Your task to perform on an android device: turn on bluetooth scan Image 0: 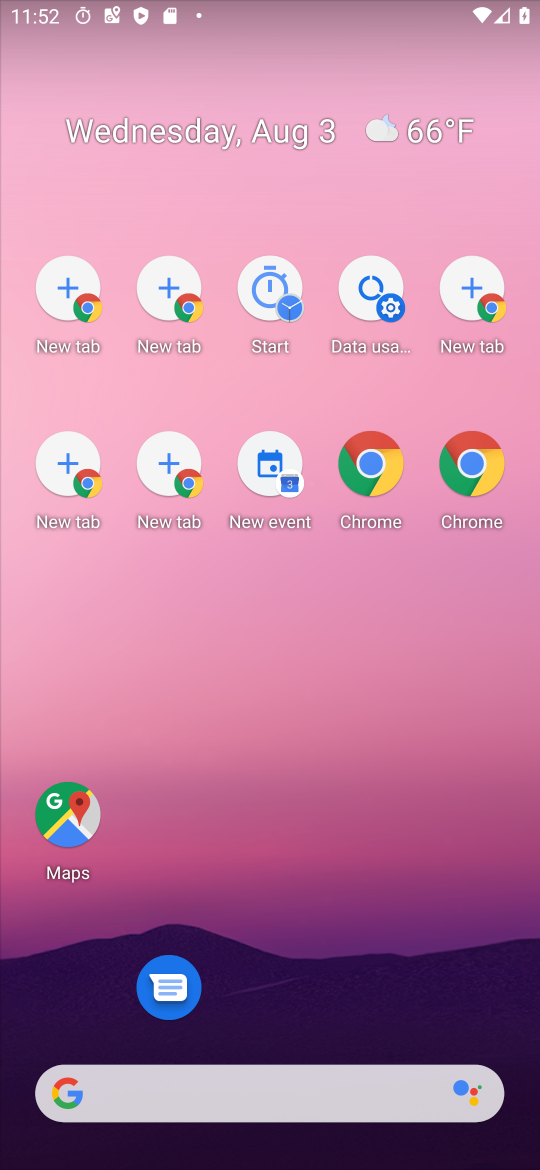
Step 0: drag from (227, 224) to (288, 118)
Your task to perform on an android device: turn on bluetooth scan Image 1: 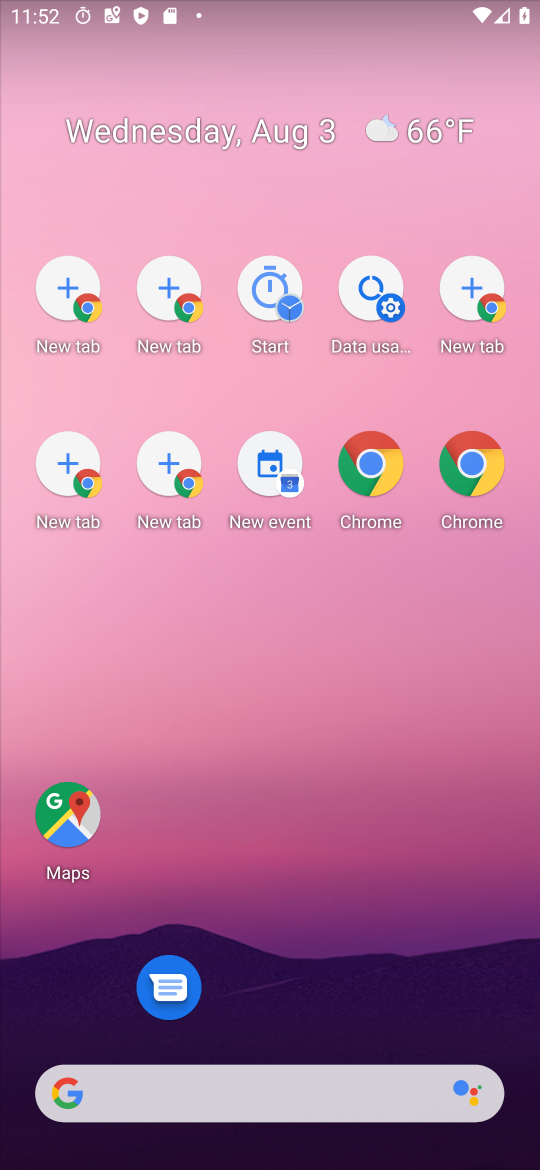
Step 1: click (284, 276)
Your task to perform on an android device: turn on bluetooth scan Image 2: 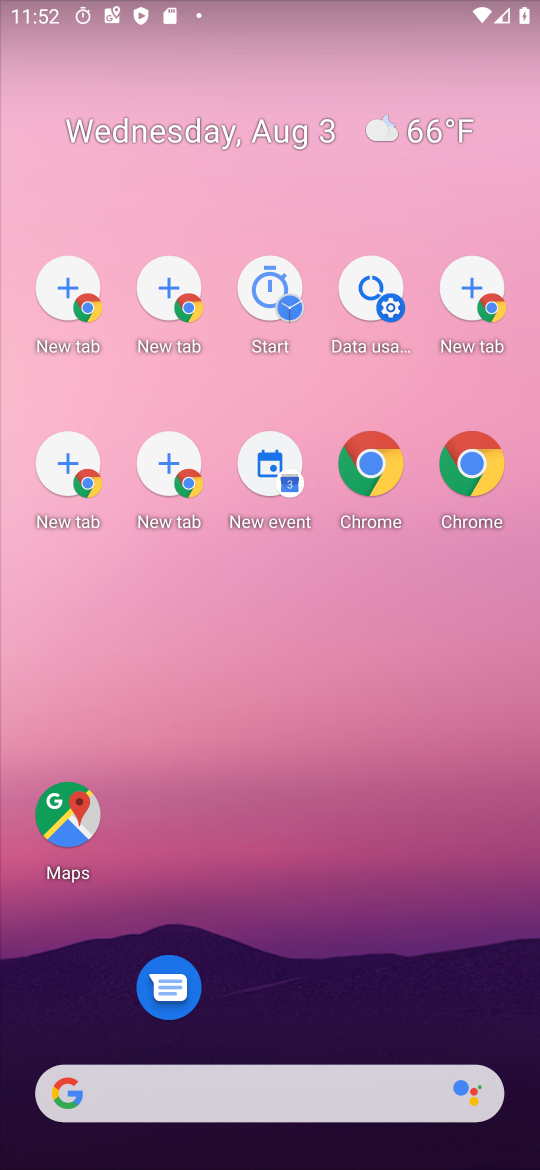
Step 2: click (276, 319)
Your task to perform on an android device: turn on bluetooth scan Image 3: 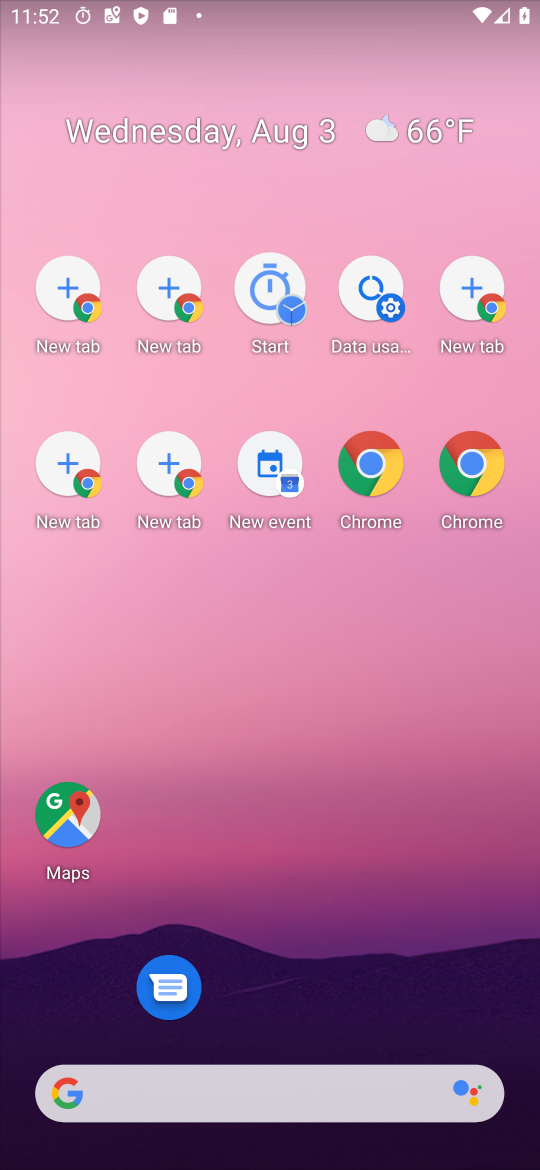
Step 3: click (227, 732)
Your task to perform on an android device: turn on bluetooth scan Image 4: 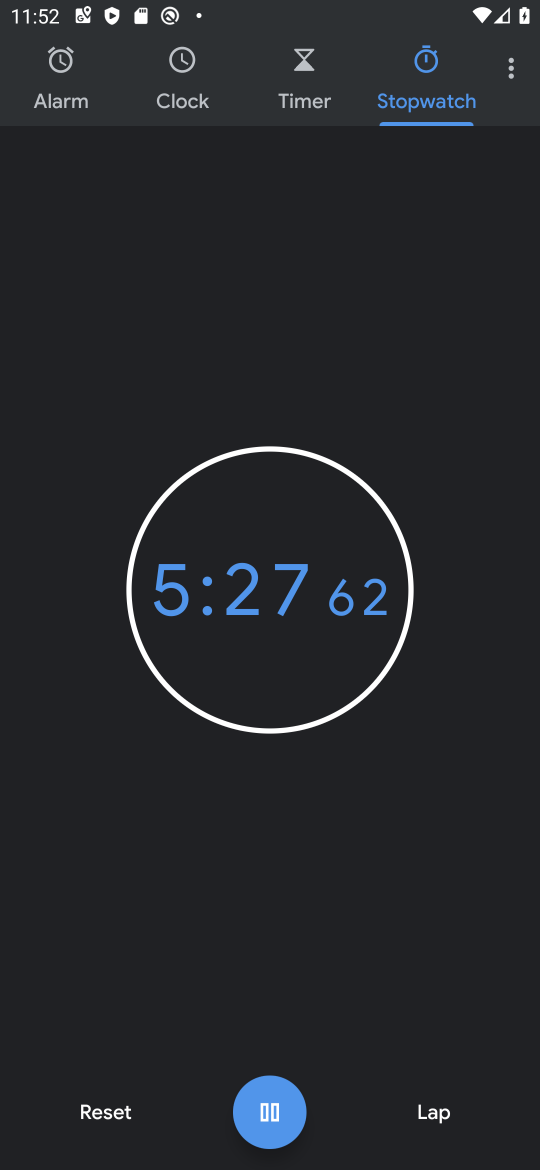
Step 4: press back button
Your task to perform on an android device: turn on bluetooth scan Image 5: 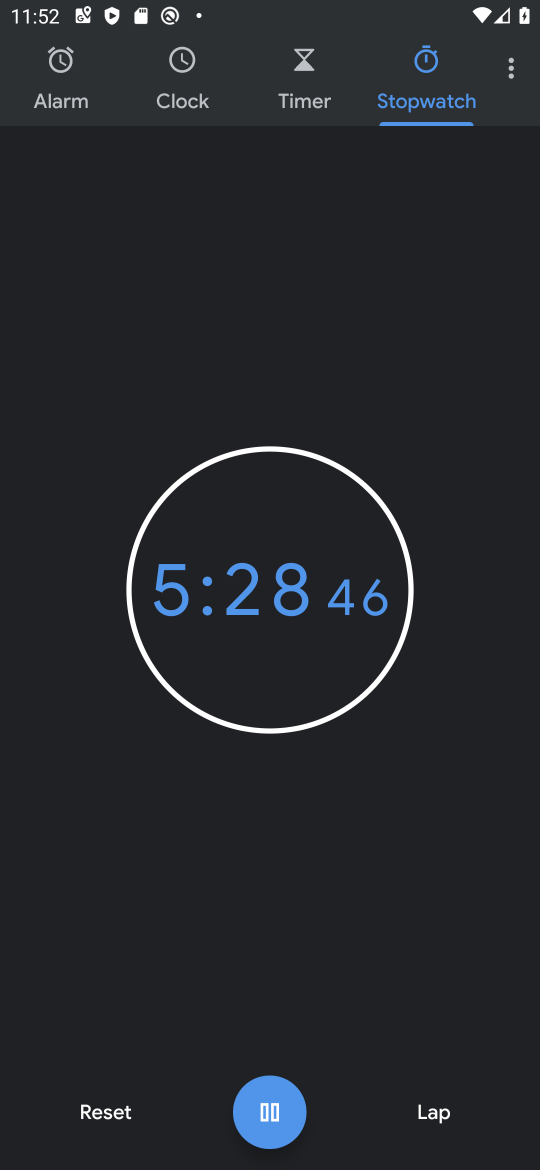
Step 5: press back button
Your task to perform on an android device: turn on bluetooth scan Image 6: 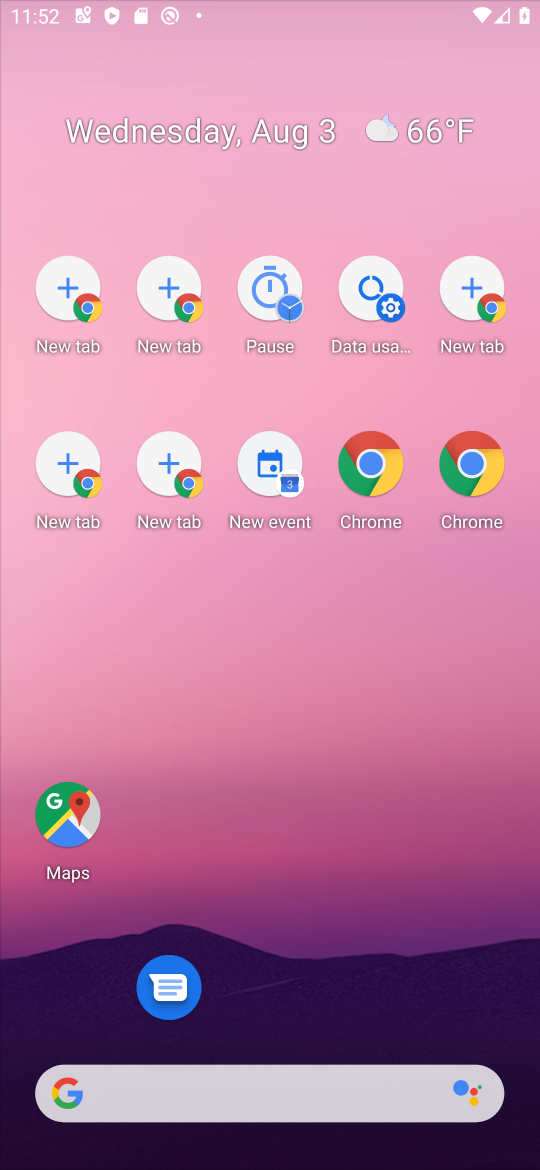
Step 6: press back button
Your task to perform on an android device: turn on bluetooth scan Image 7: 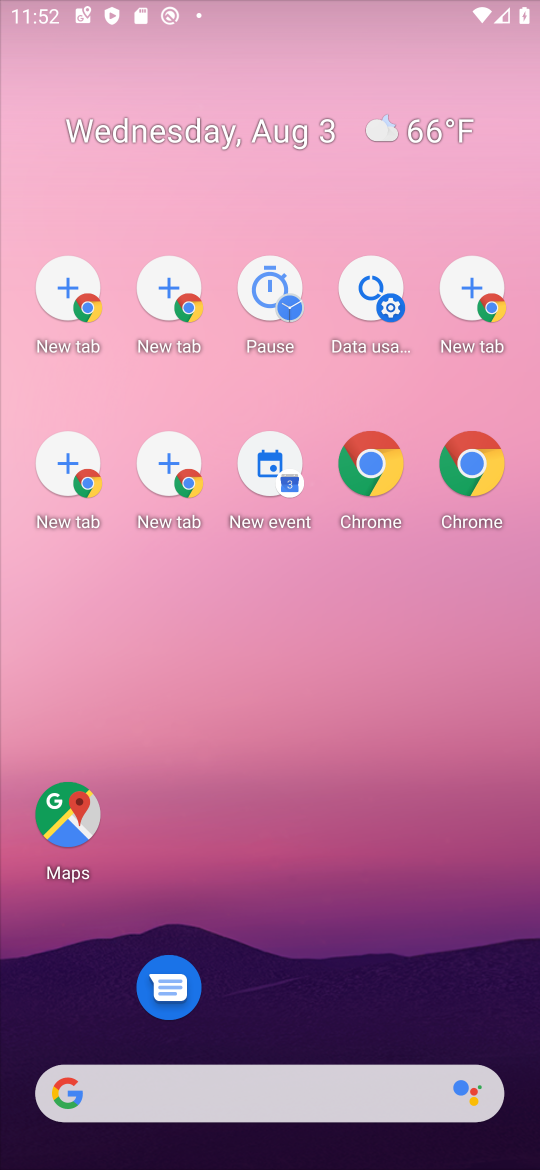
Step 7: click (257, 48)
Your task to perform on an android device: turn on bluetooth scan Image 8: 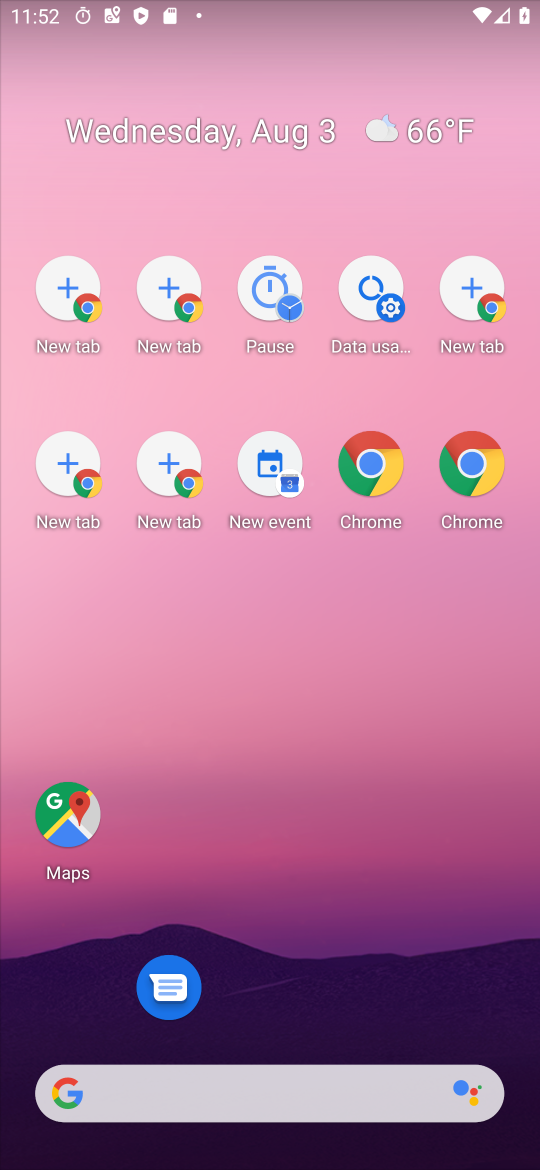
Step 8: click (317, 126)
Your task to perform on an android device: turn on bluetooth scan Image 9: 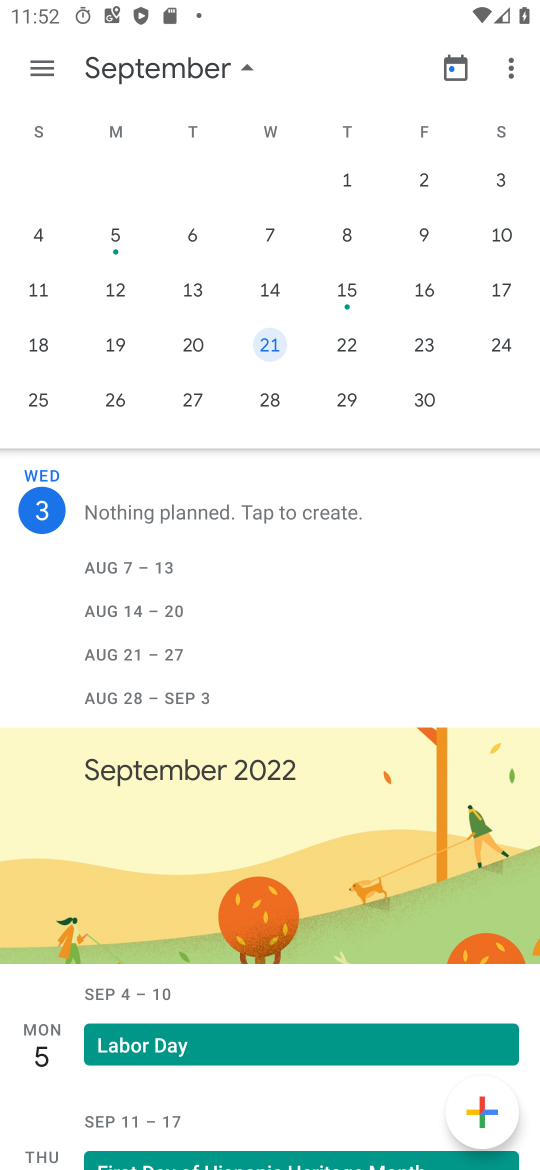
Step 9: drag from (252, 919) to (252, 460)
Your task to perform on an android device: turn on bluetooth scan Image 10: 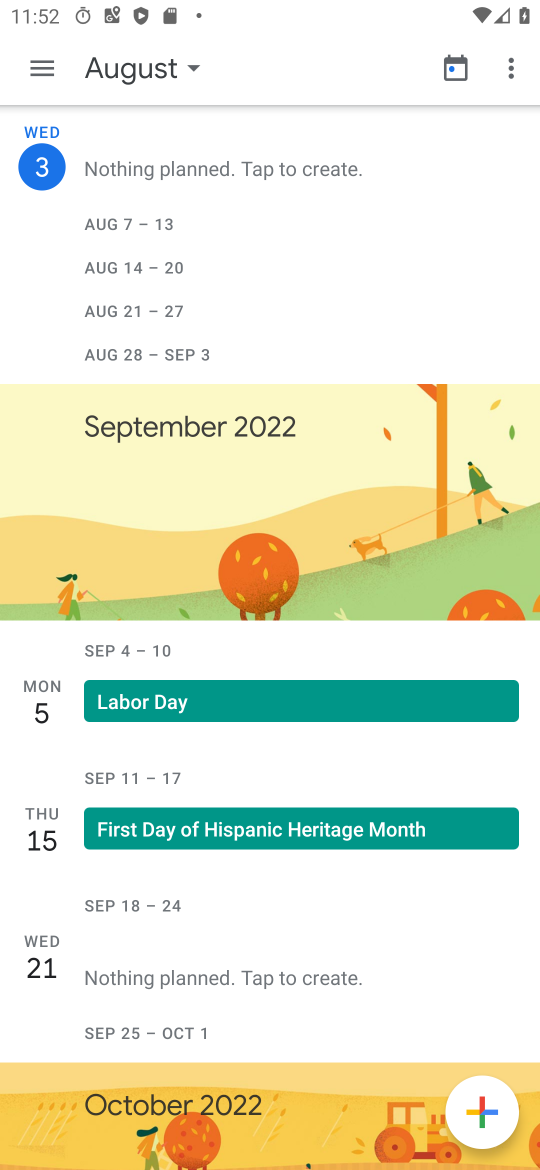
Step 10: press back button
Your task to perform on an android device: turn on bluetooth scan Image 11: 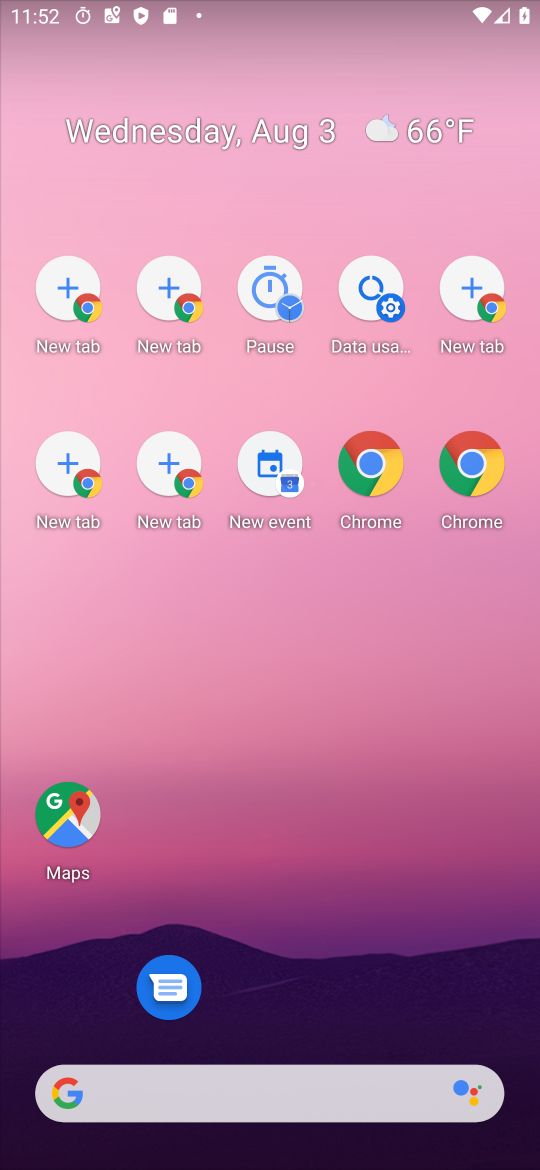
Step 11: drag from (196, 768) to (289, 224)
Your task to perform on an android device: turn on bluetooth scan Image 12: 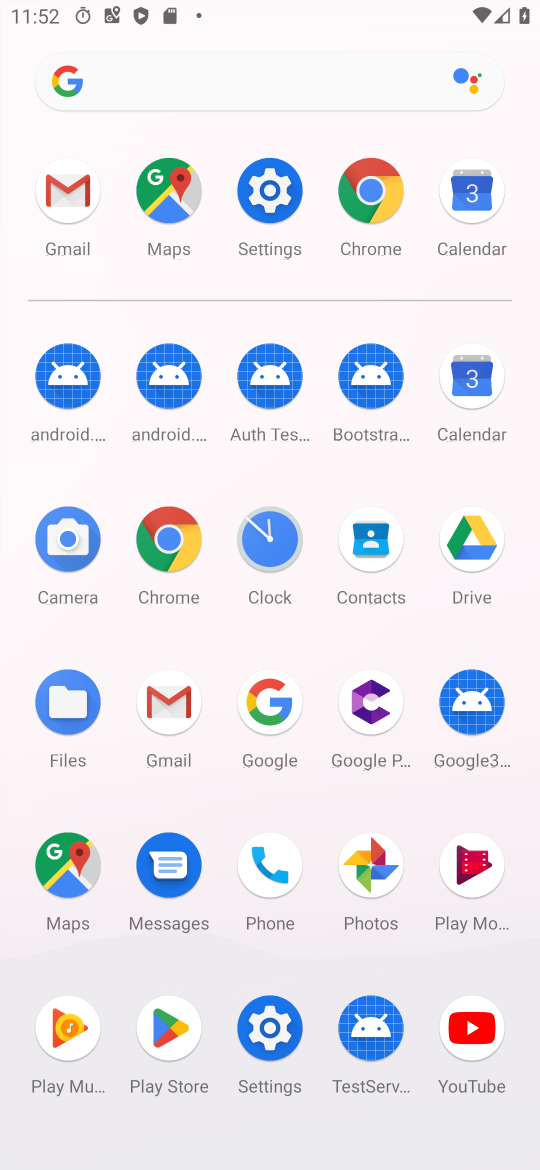
Step 12: click (256, 1029)
Your task to perform on an android device: turn on bluetooth scan Image 13: 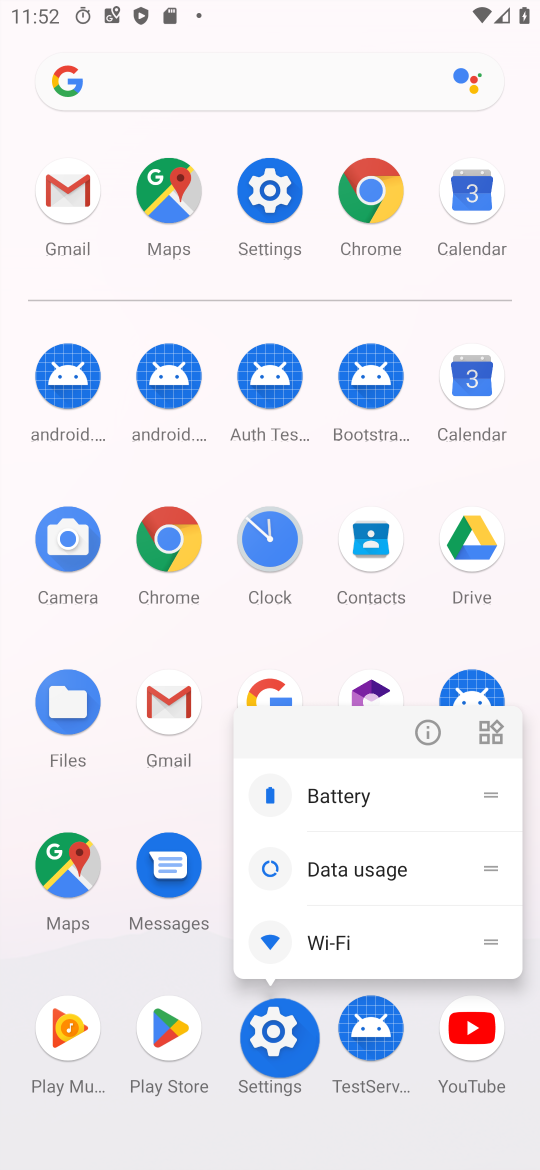
Step 13: click (265, 1044)
Your task to perform on an android device: turn on bluetooth scan Image 14: 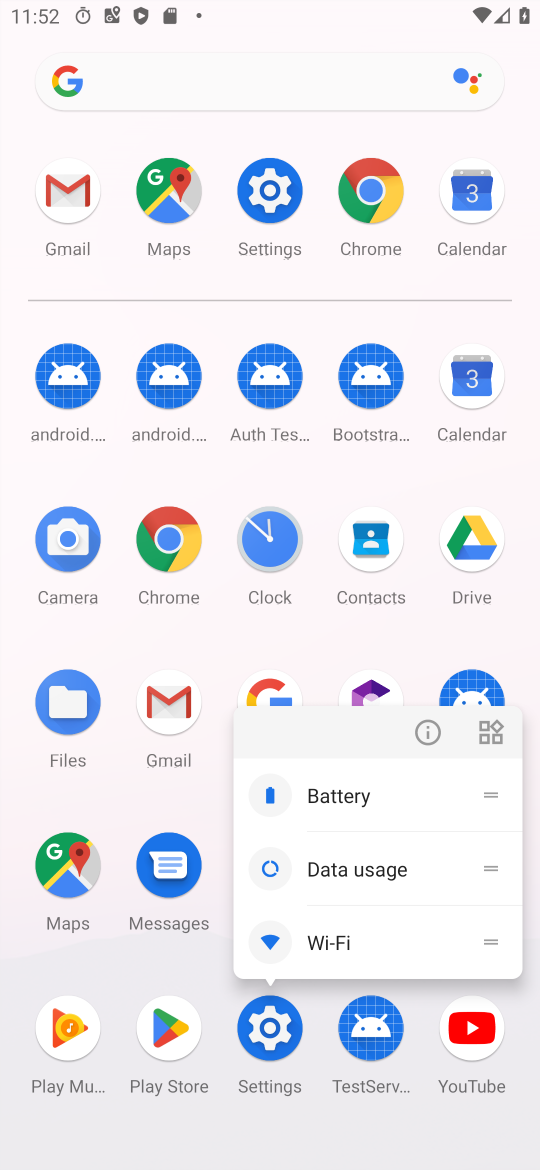
Step 14: click (256, 1020)
Your task to perform on an android device: turn on bluetooth scan Image 15: 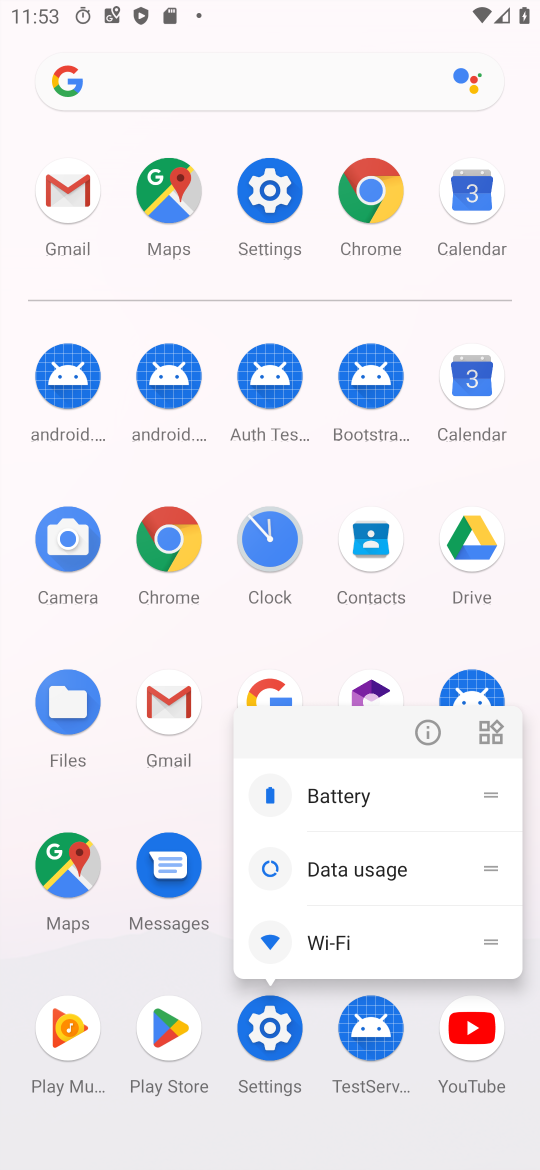
Step 15: click (271, 198)
Your task to perform on an android device: turn on bluetooth scan Image 16: 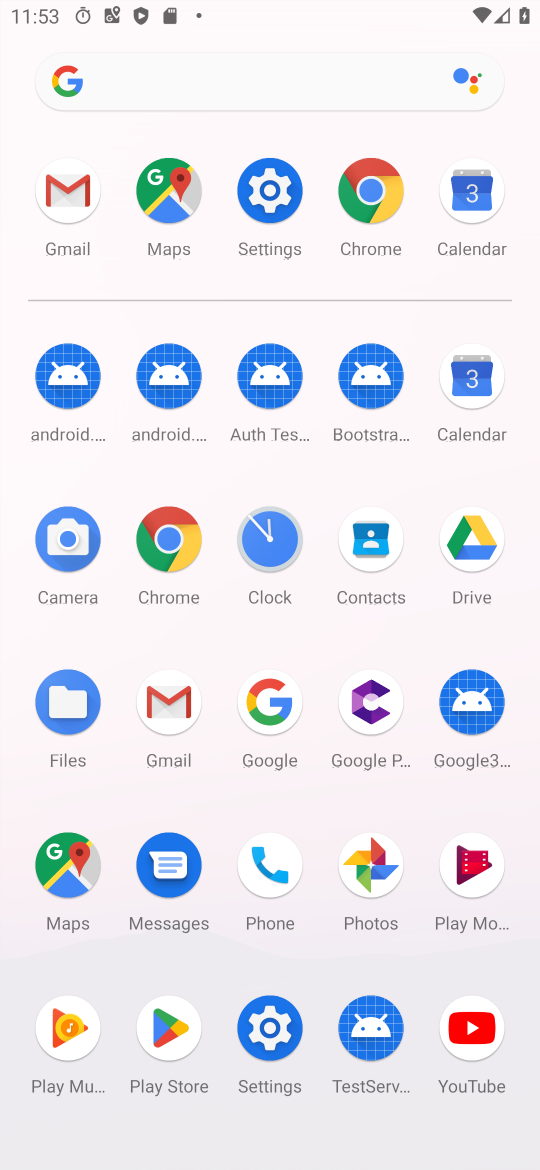
Step 16: click (270, 198)
Your task to perform on an android device: turn on bluetooth scan Image 17: 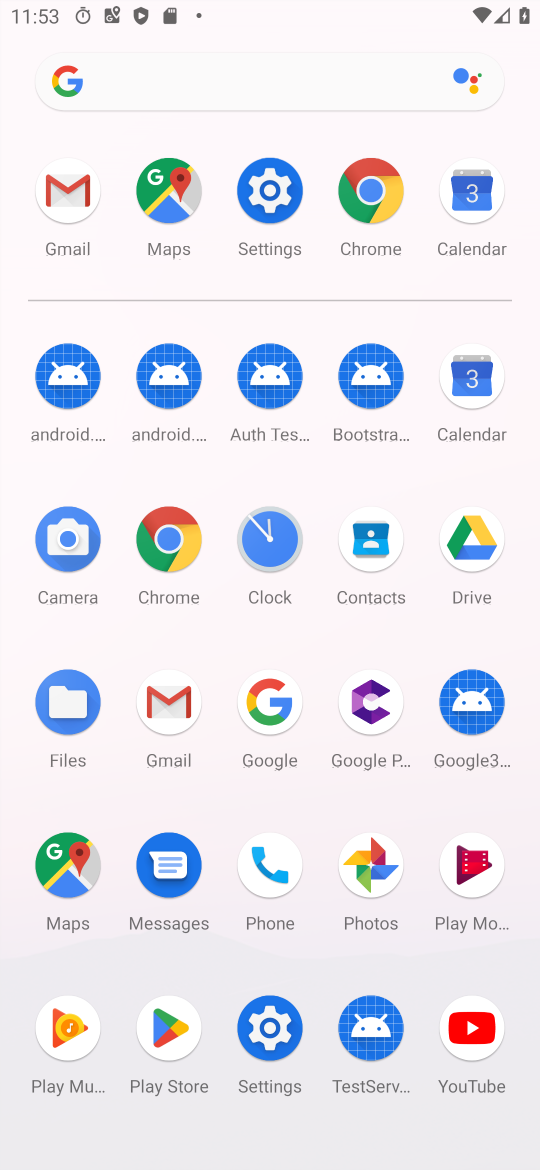
Step 17: click (273, 197)
Your task to perform on an android device: turn on bluetooth scan Image 18: 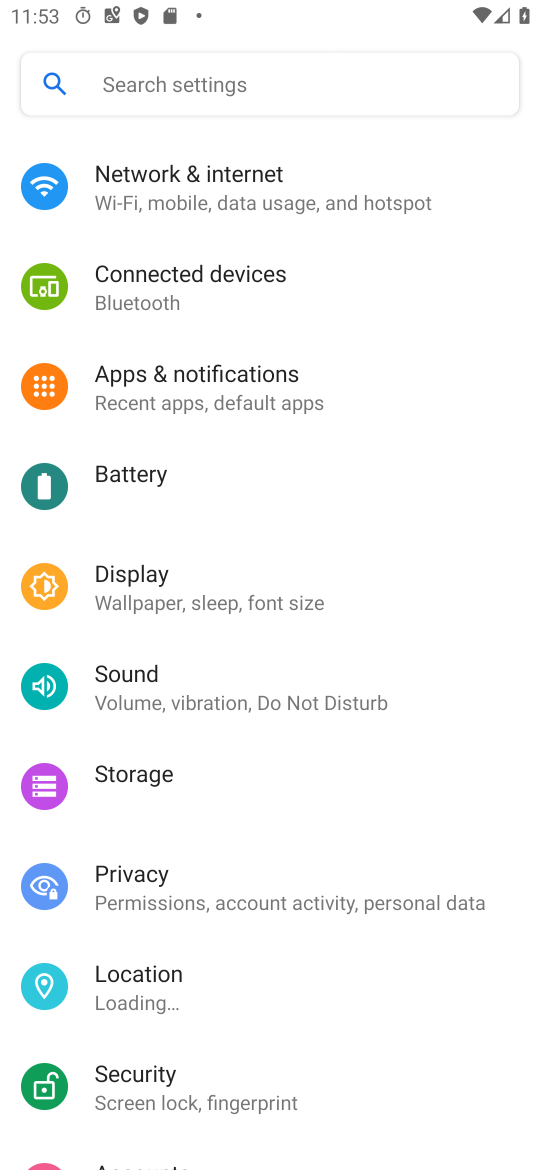
Step 18: click (274, 201)
Your task to perform on an android device: turn on bluetooth scan Image 19: 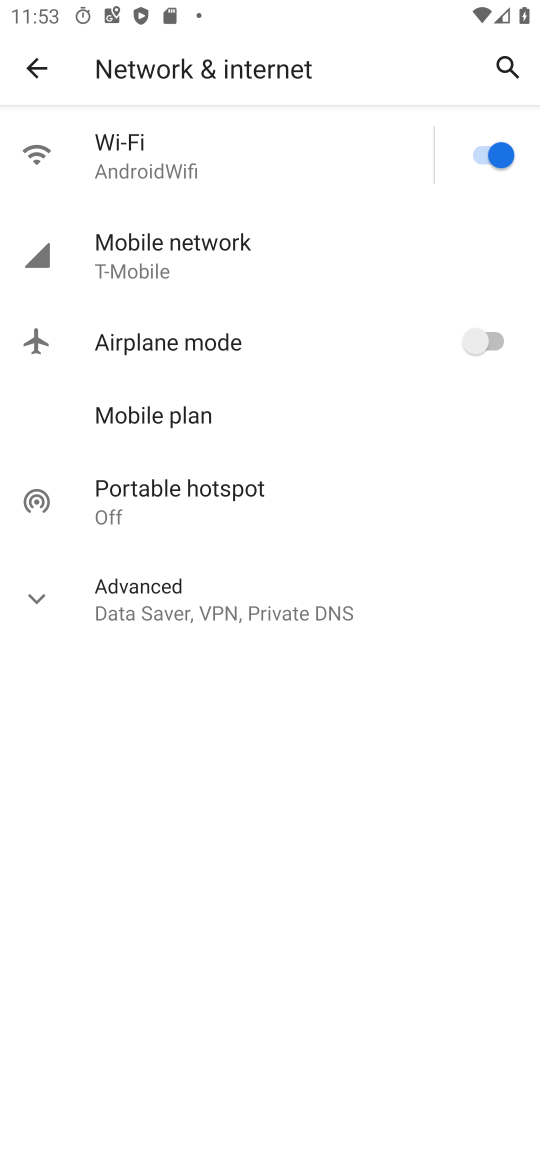
Step 19: click (31, 71)
Your task to perform on an android device: turn on bluetooth scan Image 20: 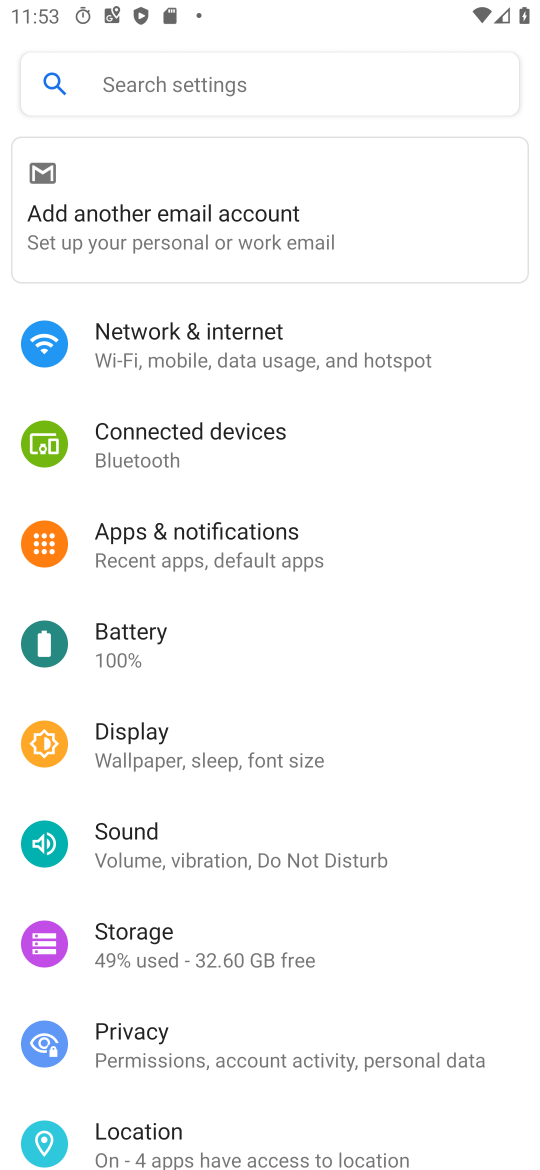
Step 20: drag from (164, 802) to (164, 368)
Your task to perform on an android device: turn on bluetooth scan Image 21: 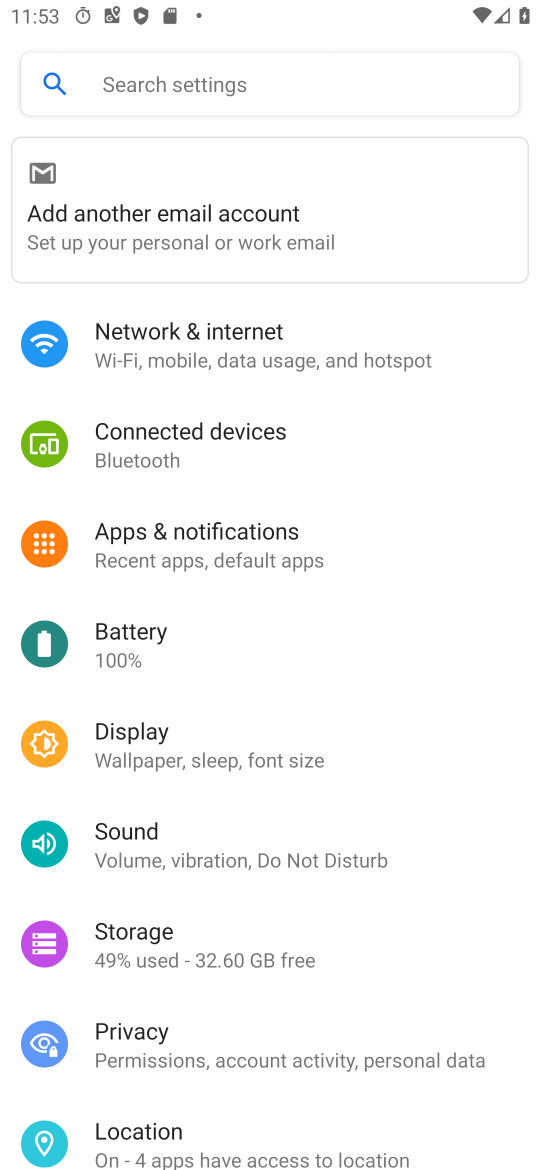
Step 21: drag from (283, 853) to (273, 286)
Your task to perform on an android device: turn on bluetooth scan Image 22: 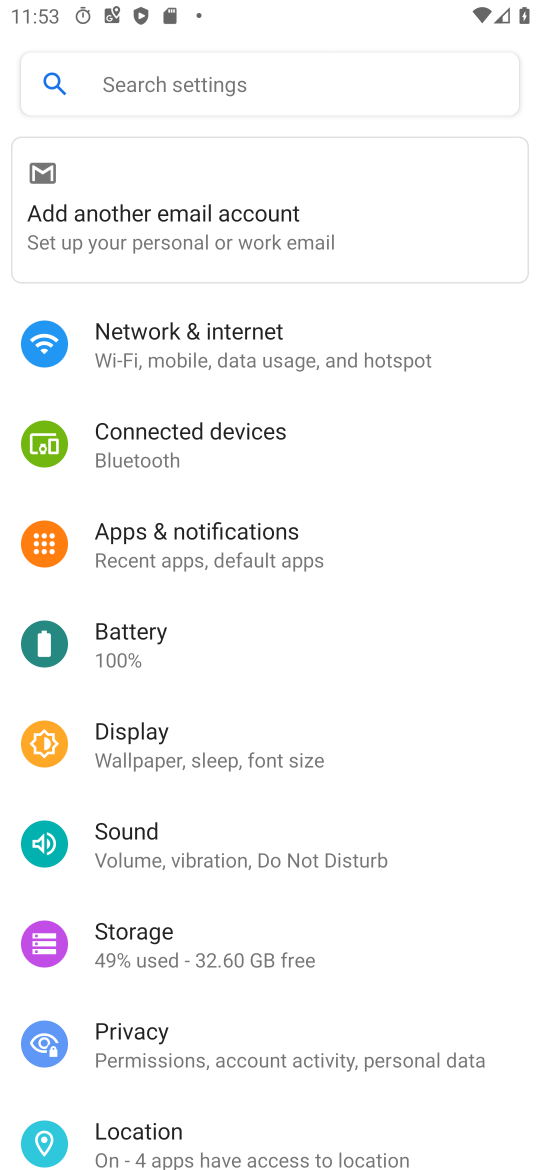
Step 22: click (159, 1141)
Your task to perform on an android device: turn on bluetooth scan Image 23: 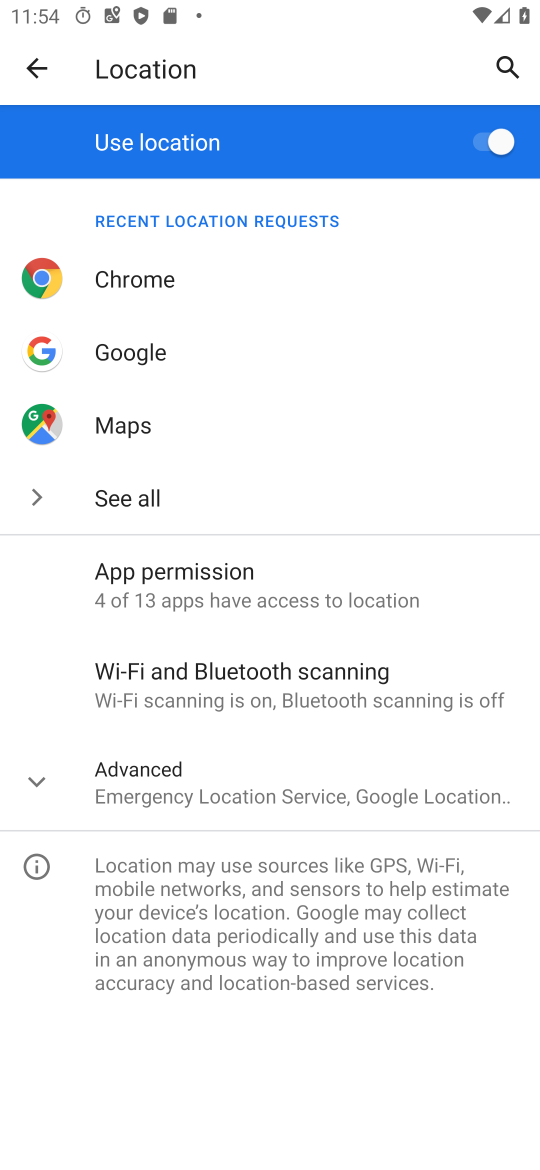
Step 23: click (222, 680)
Your task to perform on an android device: turn on bluetooth scan Image 24: 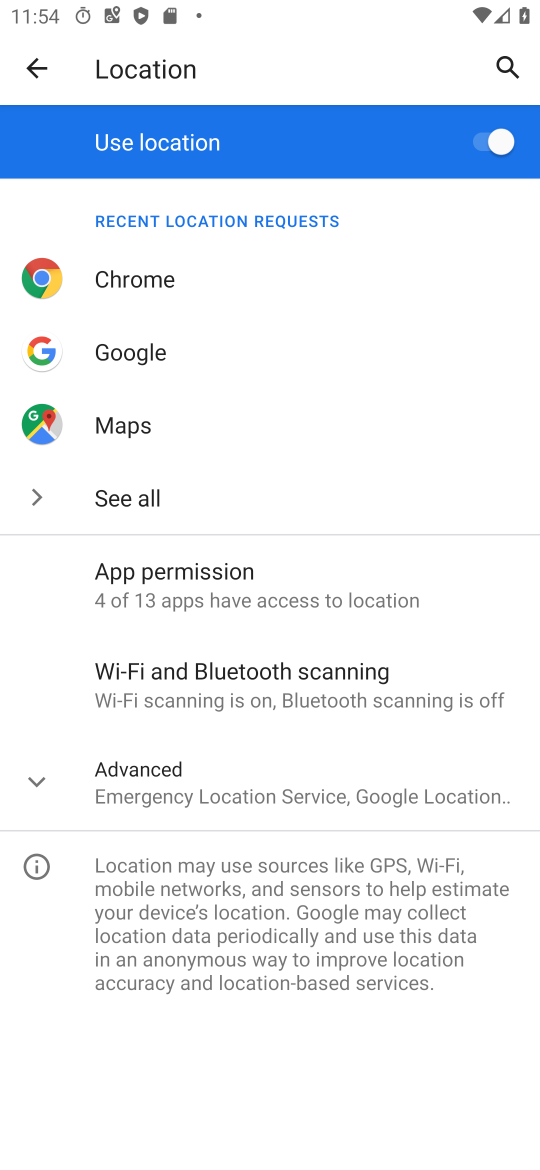
Step 24: click (222, 680)
Your task to perform on an android device: turn on bluetooth scan Image 25: 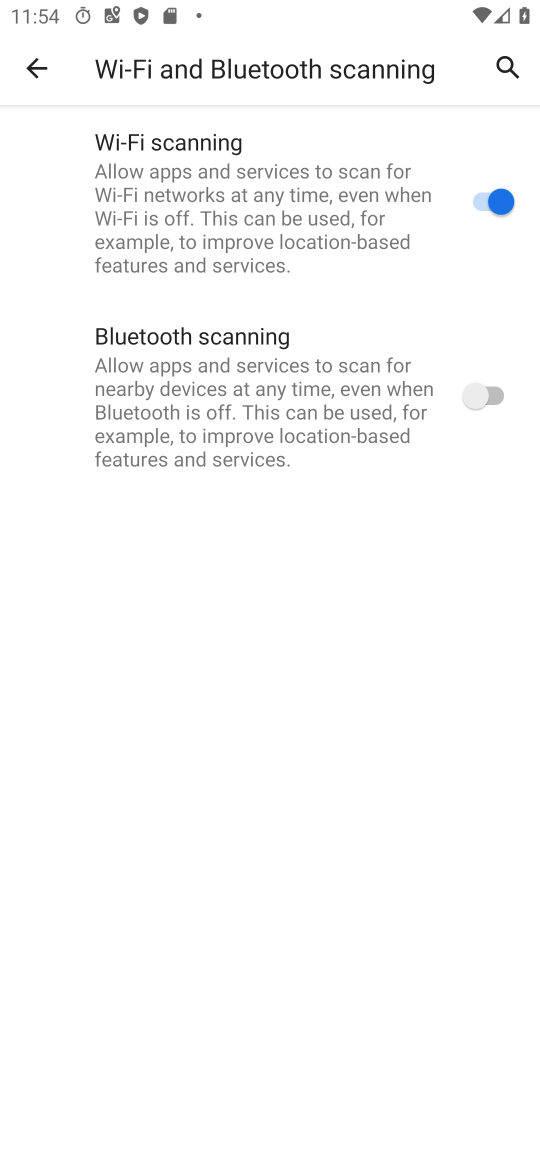
Step 25: click (480, 394)
Your task to perform on an android device: turn on bluetooth scan Image 26: 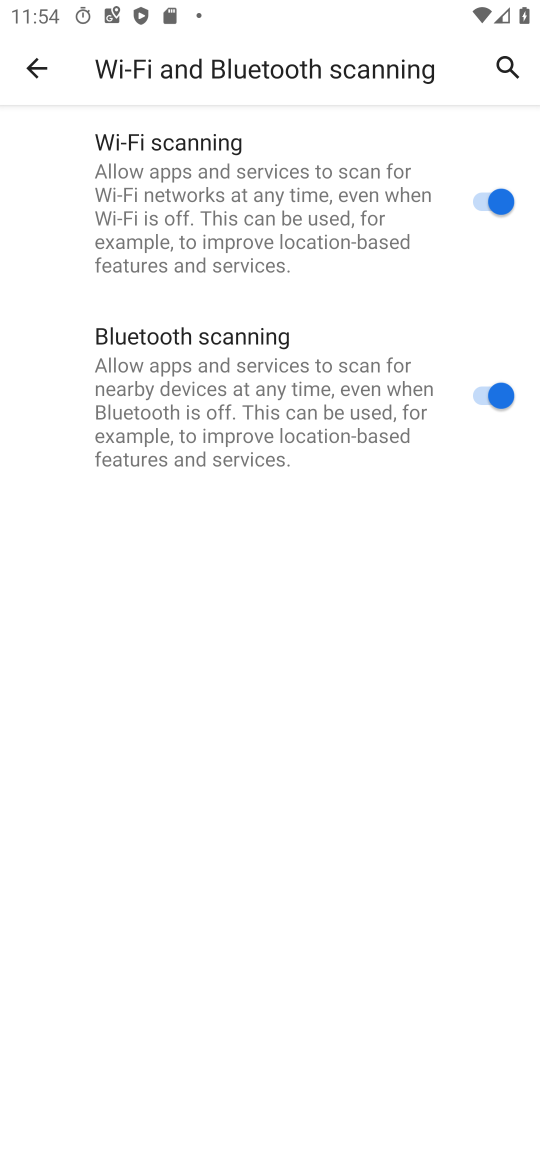
Step 26: task complete